Your task to perform on an android device: check out phone information Image 0: 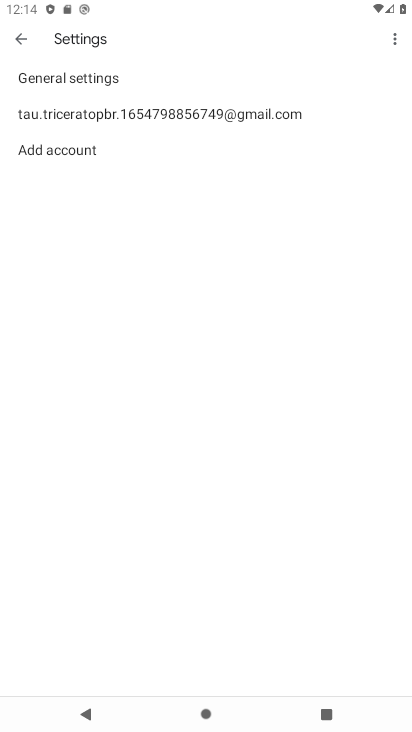
Step 0: press home button
Your task to perform on an android device: check out phone information Image 1: 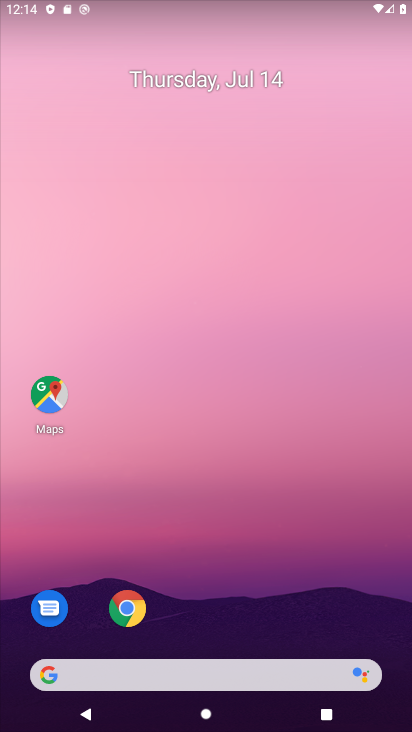
Step 1: drag from (320, 504) to (289, 18)
Your task to perform on an android device: check out phone information Image 2: 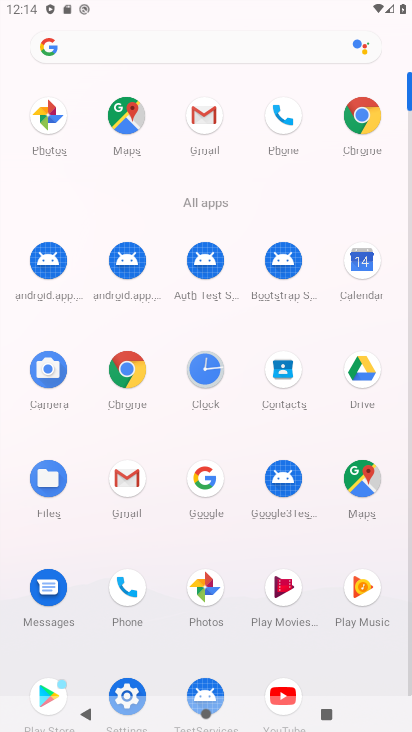
Step 2: click (135, 691)
Your task to perform on an android device: check out phone information Image 3: 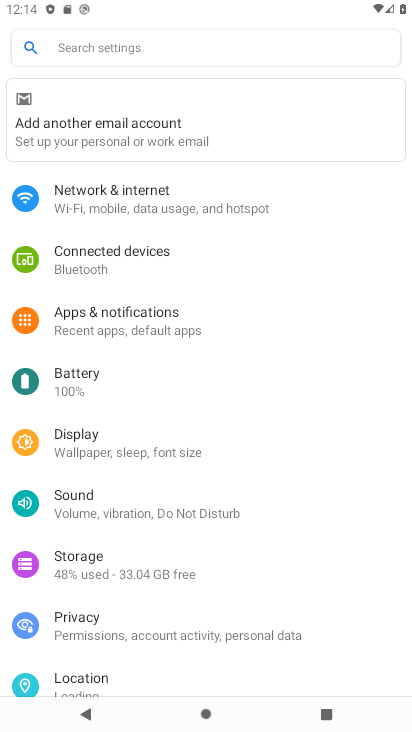
Step 3: drag from (166, 648) to (246, 279)
Your task to perform on an android device: check out phone information Image 4: 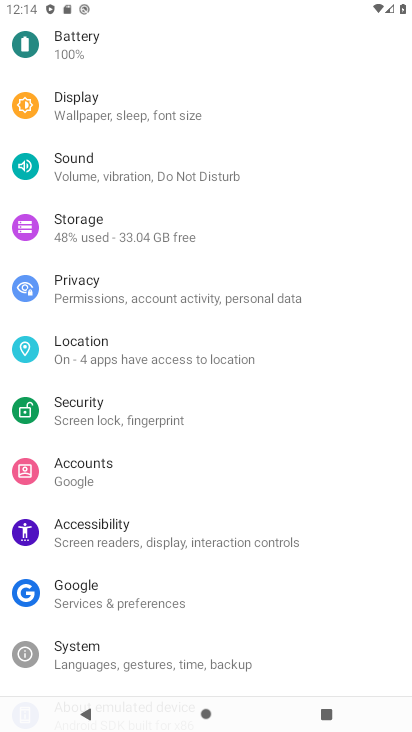
Step 4: drag from (254, 429) to (262, 99)
Your task to perform on an android device: check out phone information Image 5: 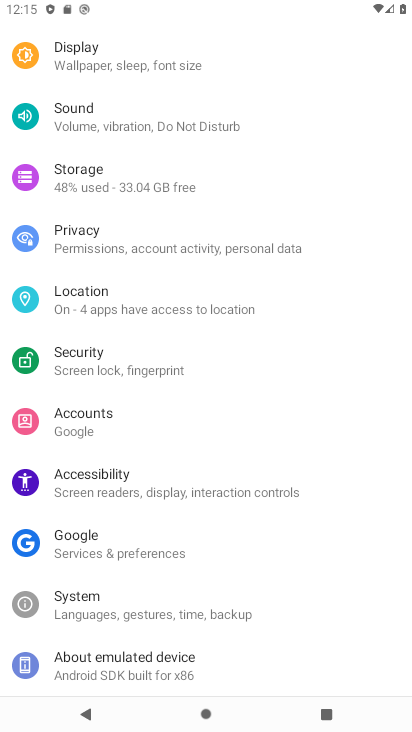
Step 5: click (150, 679)
Your task to perform on an android device: check out phone information Image 6: 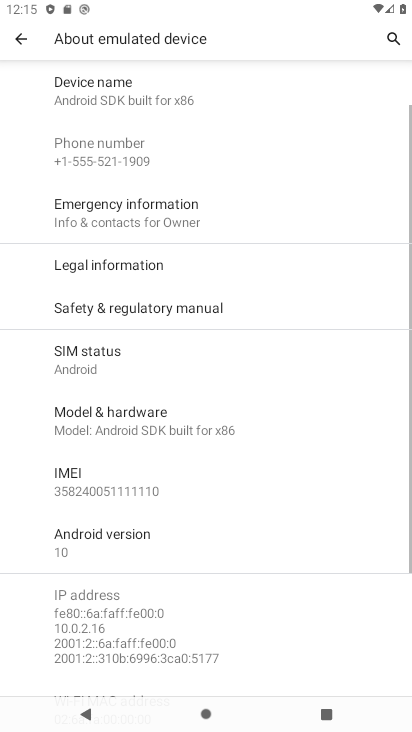
Step 6: task complete